Your task to perform on an android device: toggle pop-ups in chrome Image 0: 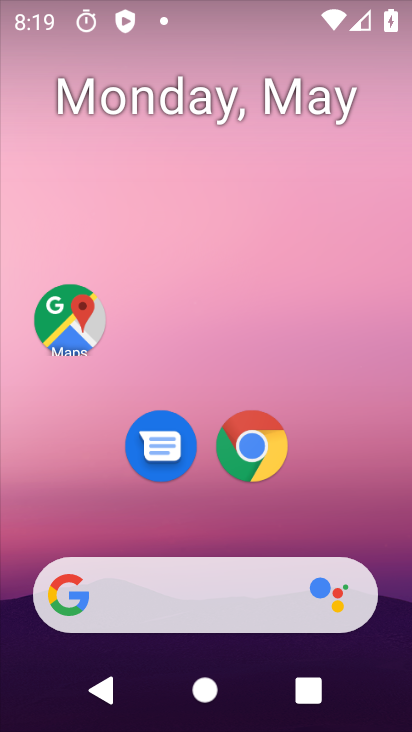
Step 0: click (257, 443)
Your task to perform on an android device: toggle pop-ups in chrome Image 1: 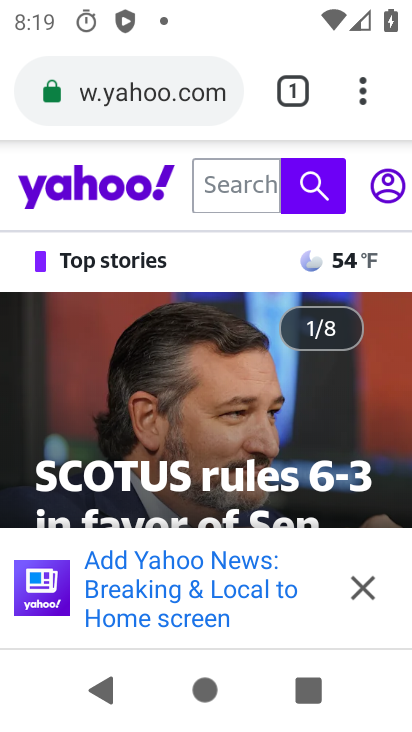
Step 1: click (362, 94)
Your task to perform on an android device: toggle pop-ups in chrome Image 2: 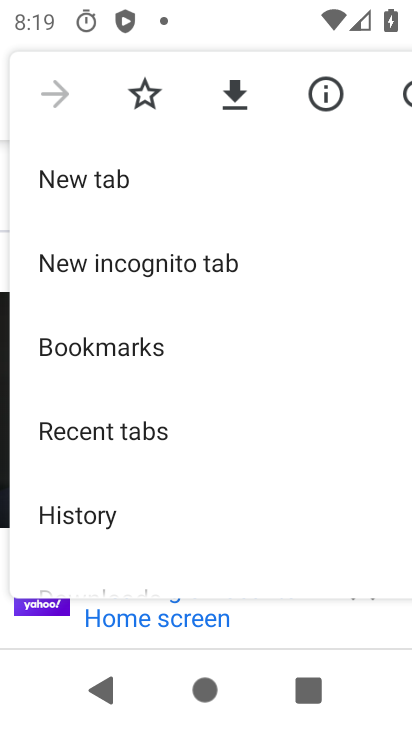
Step 2: drag from (177, 516) to (167, 59)
Your task to perform on an android device: toggle pop-ups in chrome Image 3: 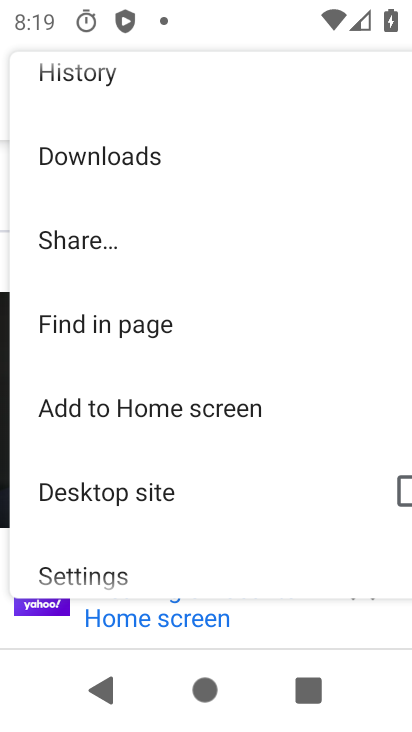
Step 3: drag from (143, 526) to (151, 202)
Your task to perform on an android device: toggle pop-ups in chrome Image 4: 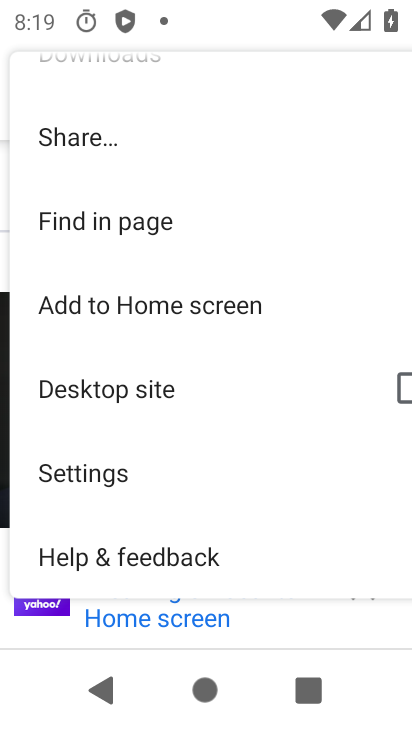
Step 4: click (79, 484)
Your task to perform on an android device: toggle pop-ups in chrome Image 5: 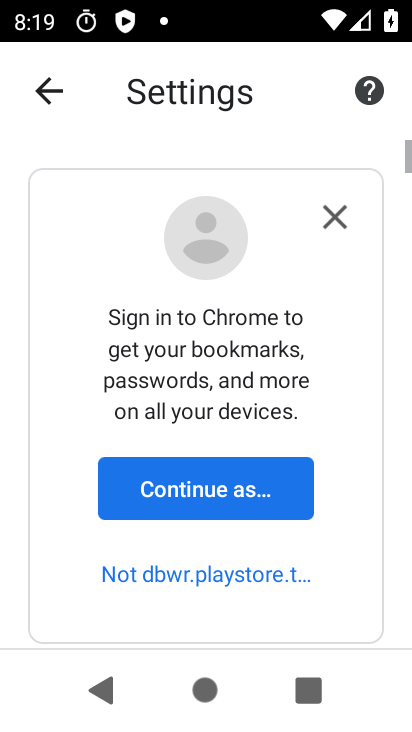
Step 5: drag from (322, 602) to (317, 16)
Your task to perform on an android device: toggle pop-ups in chrome Image 6: 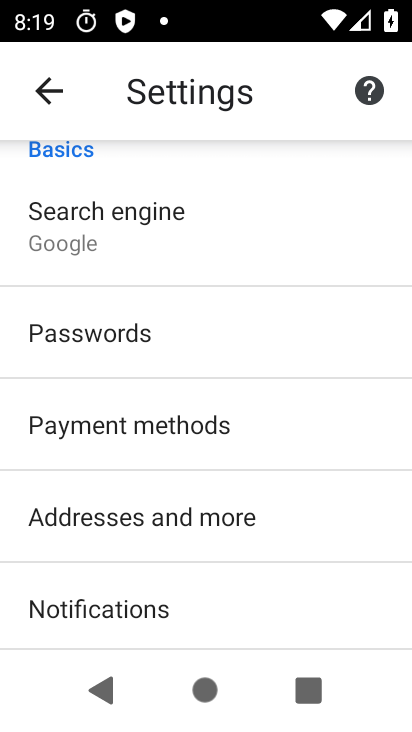
Step 6: drag from (215, 479) to (224, 0)
Your task to perform on an android device: toggle pop-ups in chrome Image 7: 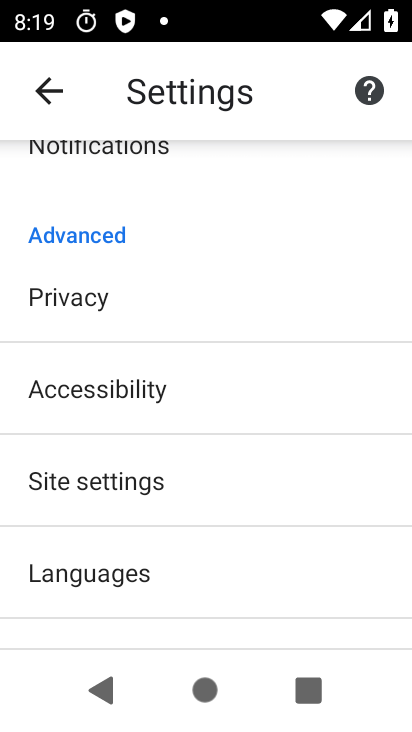
Step 7: click (106, 483)
Your task to perform on an android device: toggle pop-ups in chrome Image 8: 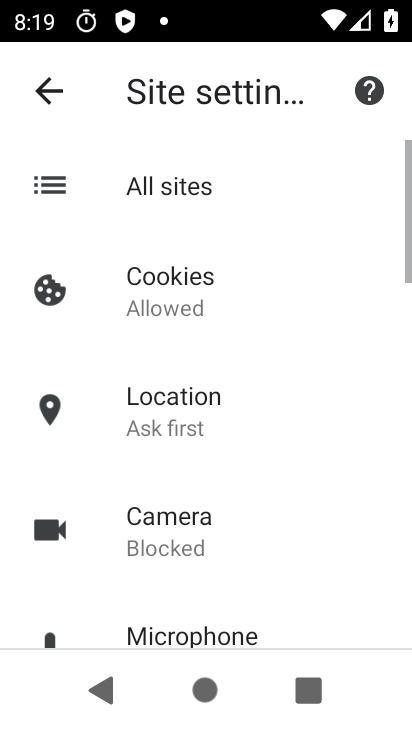
Step 8: drag from (256, 552) to (267, 151)
Your task to perform on an android device: toggle pop-ups in chrome Image 9: 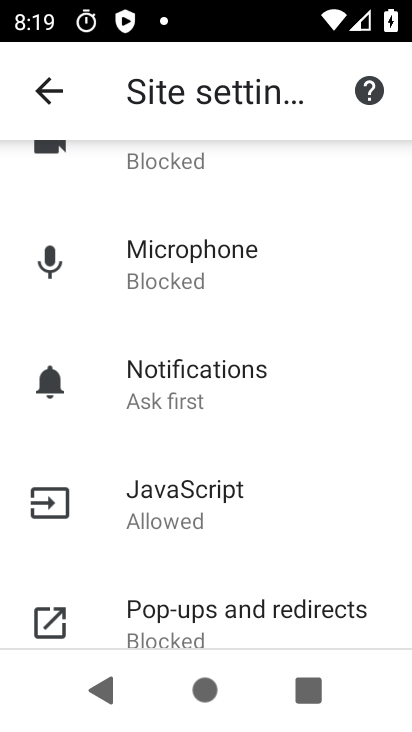
Step 9: click (165, 615)
Your task to perform on an android device: toggle pop-ups in chrome Image 10: 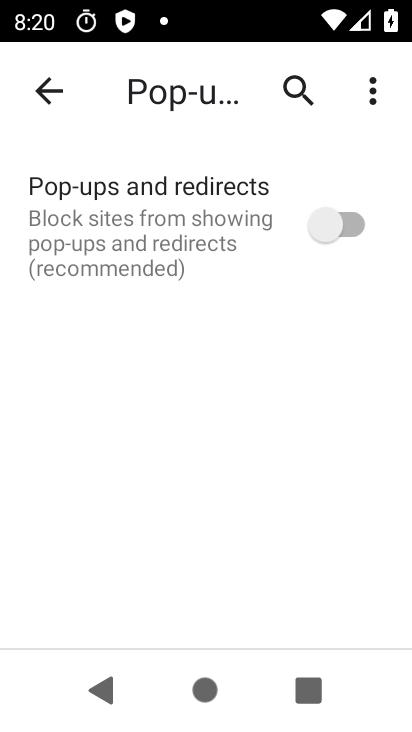
Step 10: click (316, 233)
Your task to perform on an android device: toggle pop-ups in chrome Image 11: 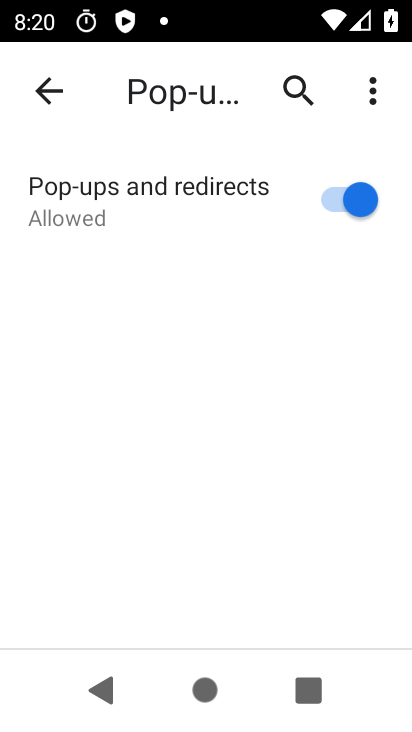
Step 11: task complete